Your task to perform on an android device: Go to network settings Image 0: 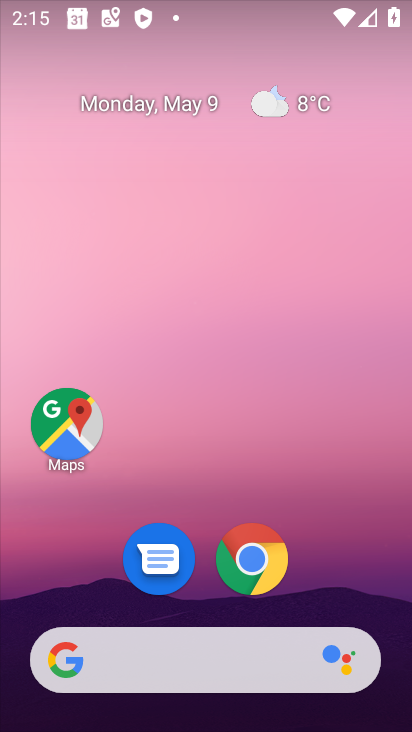
Step 0: click (304, 385)
Your task to perform on an android device: Go to network settings Image 1: 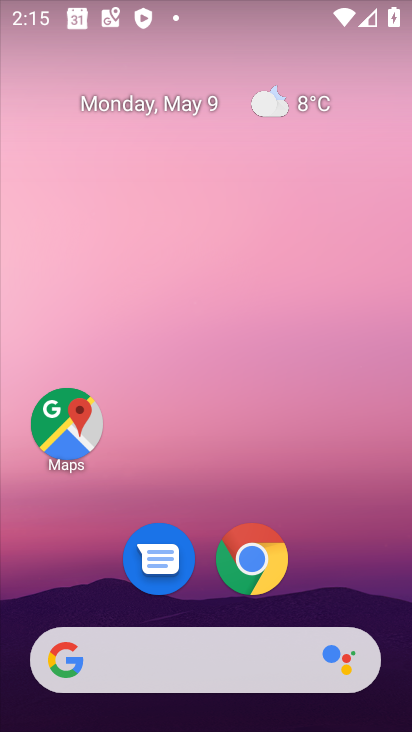
Step 1: drag from (311, 449) to (128, 4)
Your task to perform on an android device: Go to network settings Image 2: 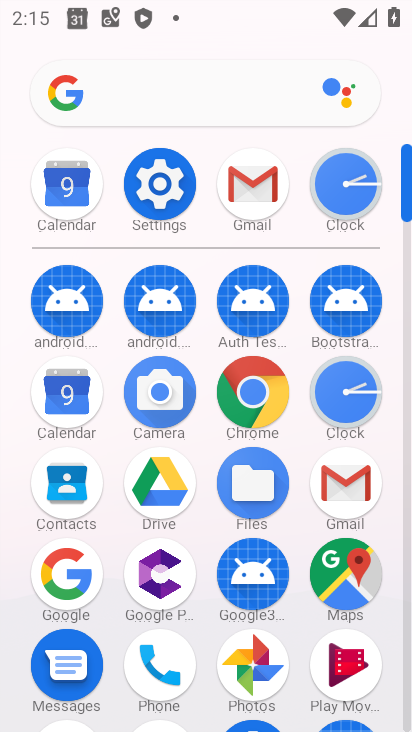
Step 2: click (165, 185)
Your task to perform on an android device: Go to network settings Image 3: 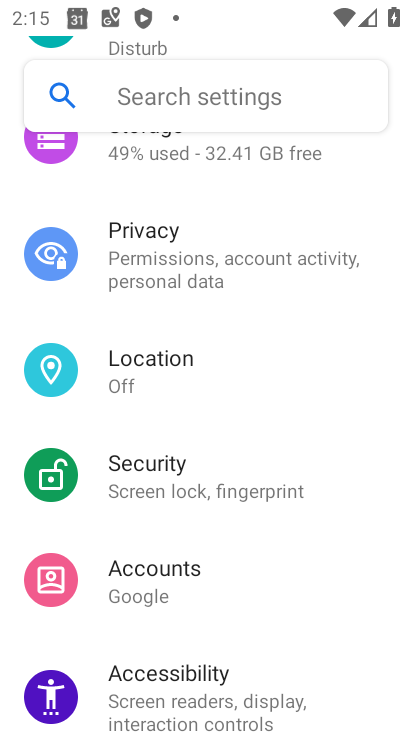
Step 3: drag from (230, 303) to (235, 724)
Your task to perform on an android device: Go to network settings Image 4: 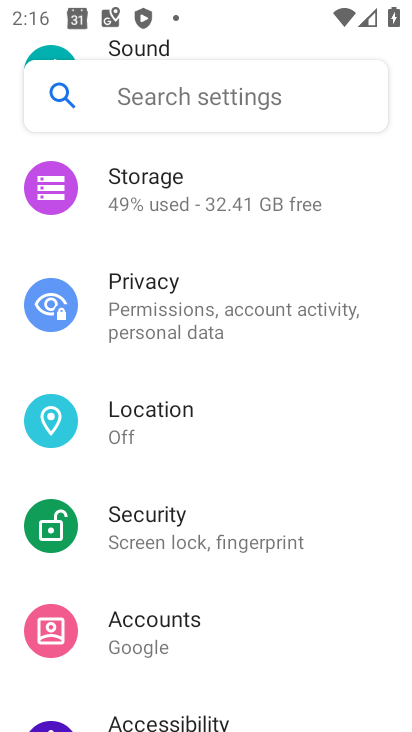
Step 4: drag from (244, 242) to (204, 702)
Your task to perform on an android device: Go to network settings Image 5: 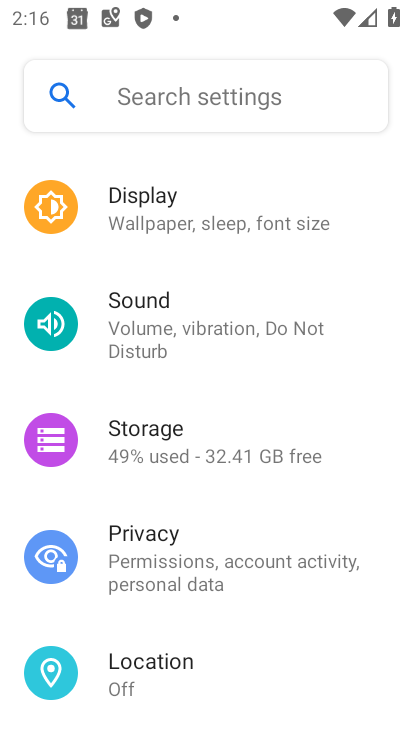
Step 5: drag from (170, 271) to (183, 685)
Your task to perform on an android device: Go to network settings Image 6: 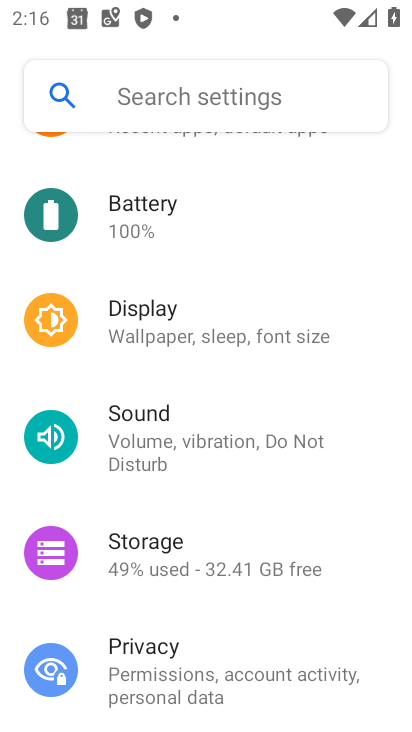
Step 6: drag from (163, 271) to (170, 723)
Your task to perform on an android device: Go to network settings Image 7: 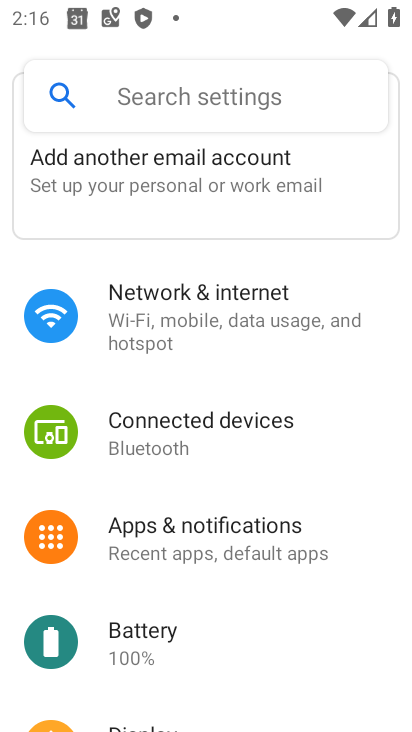
Step 7: click (174, 304)
Your task to perform on an android device: Go to network settings Image 8: 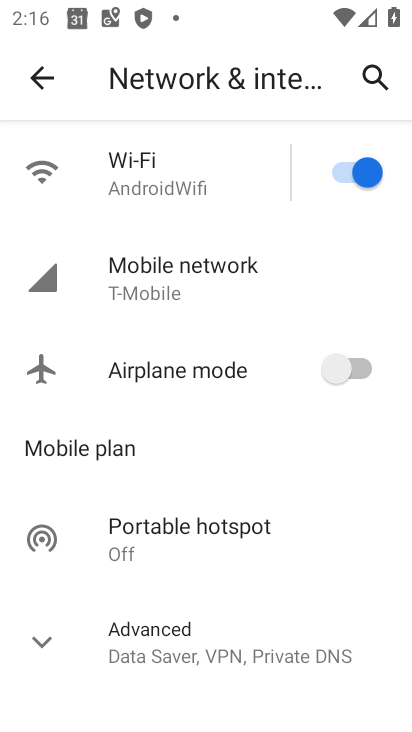
Step 8: task complete